Your task to perform on an android device: Do I have any events today? Image 0: 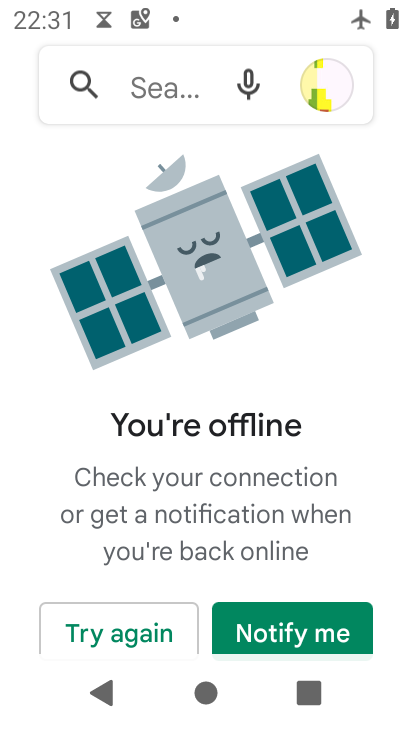
Step 0: drag from (235, 503) to (250, 278)
Your task to perform on an android device: Do I have any events today? Image 1: 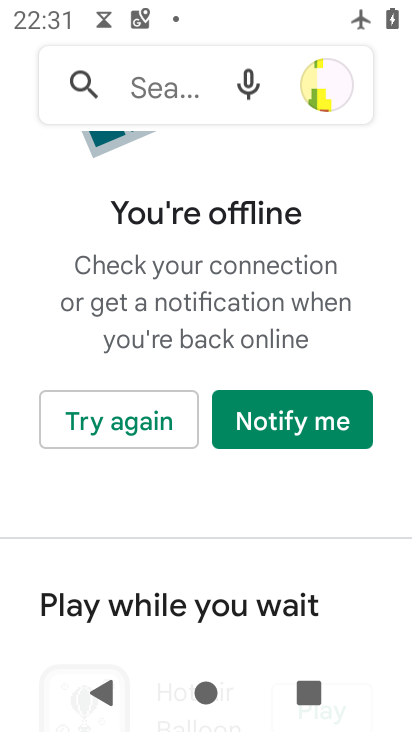
Step 1: press home button
Your task to perform on an android device: Do I have any events today? Image 2: 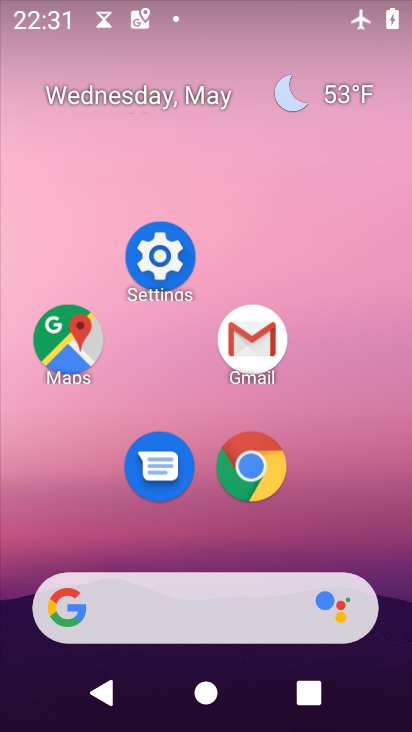
Step 2: drag from (184, 537) to (232, 235)
Your task to perform on an android device: Do I have any events today? Image 3: 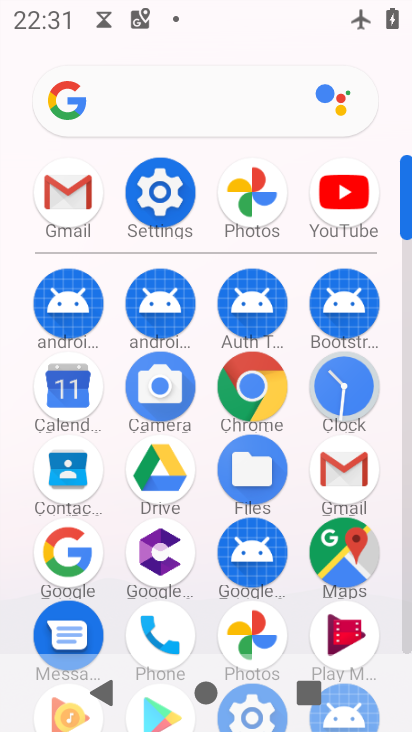
Step 3: click (52, 380)
Your task to perform on an android device: Do I have any events today? Image 4: 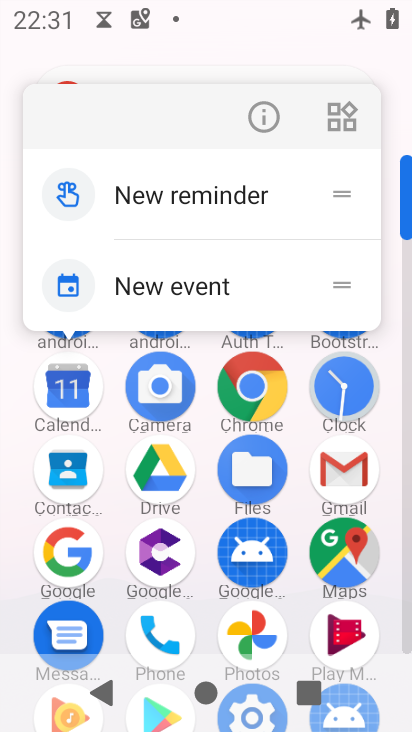
Step 4: click (259, 107)
Your task to perform on an android device: Do I have any events today? Image 5: 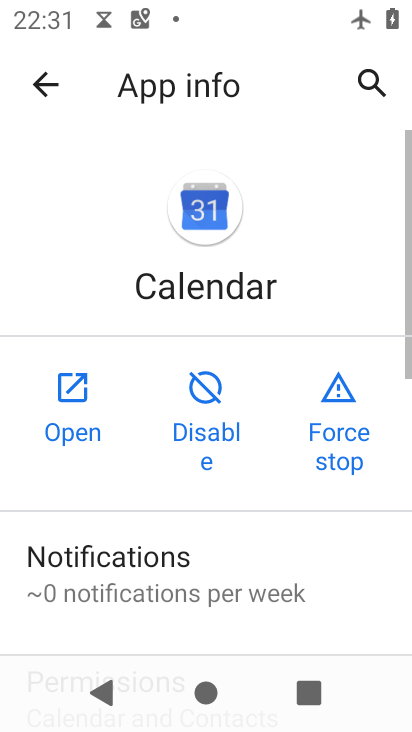
Step 5: click (83, 400)
Your task to perform on an android device: Do I have any events today? Image 6: 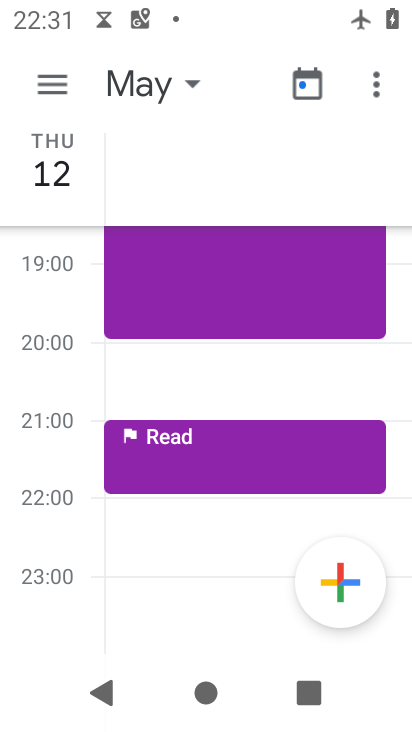
Step 6: click (167, 101)
Your task to perform on an android device: Do I have any events today? Image 7: 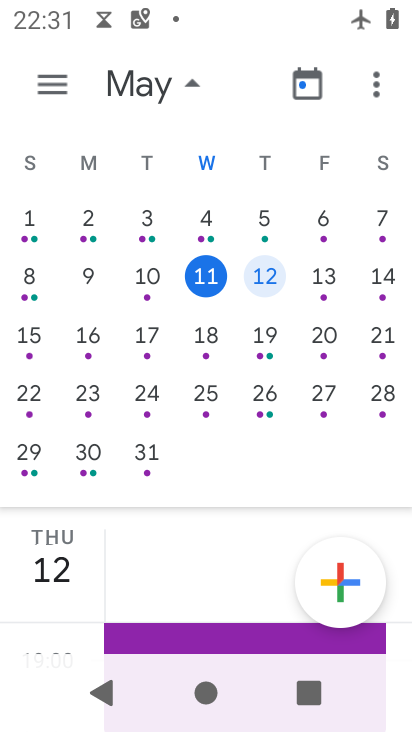
Step 7: click (192, 279)
Your task to perform on an android device: Do I have any events today? Image 8: 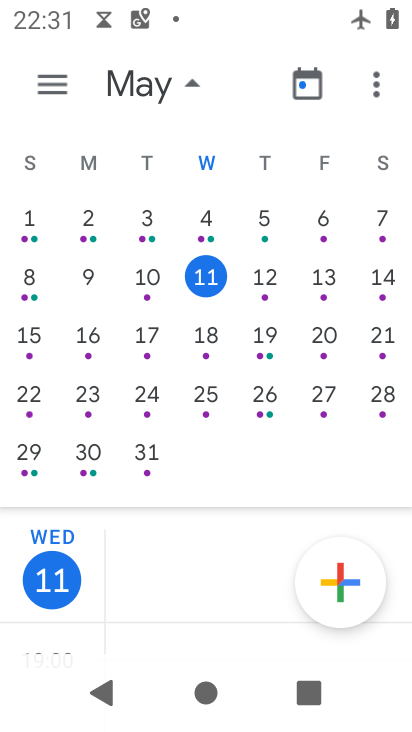
Step 8: task complete